Your task to perform on an android device: Open the Play Movies app and select the watchlist tab. Image 0: 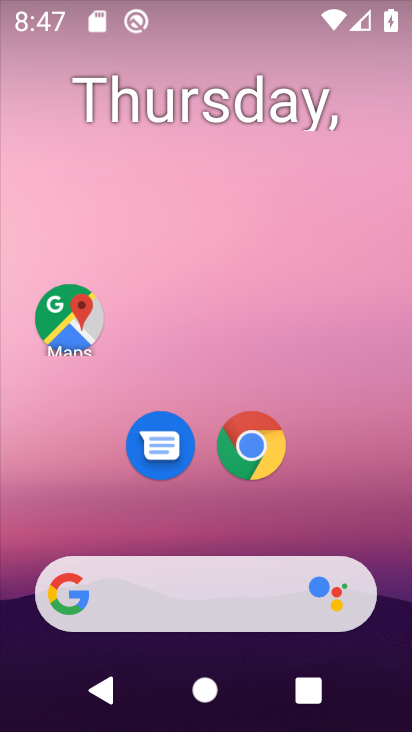
Step 0: press home button
Your task to perform on an android device: Open the Play Movies app and select the watchlist tab. Image 1: 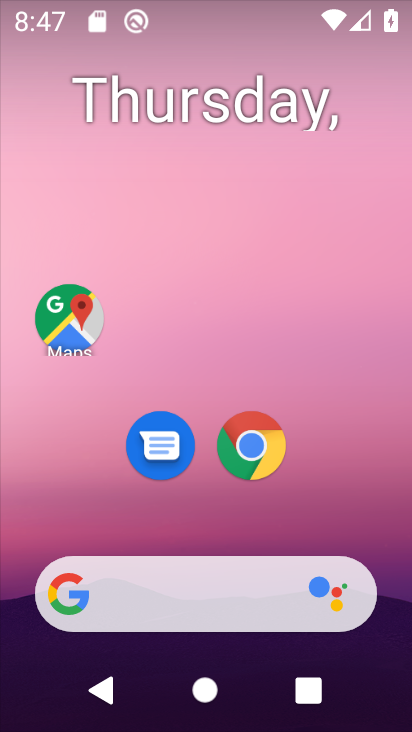
Step 1: drag from (330, 482) to (203, 79)
Your task to perform on an android device: Open the Play Movies app and select the watchlist tab. Image 2: 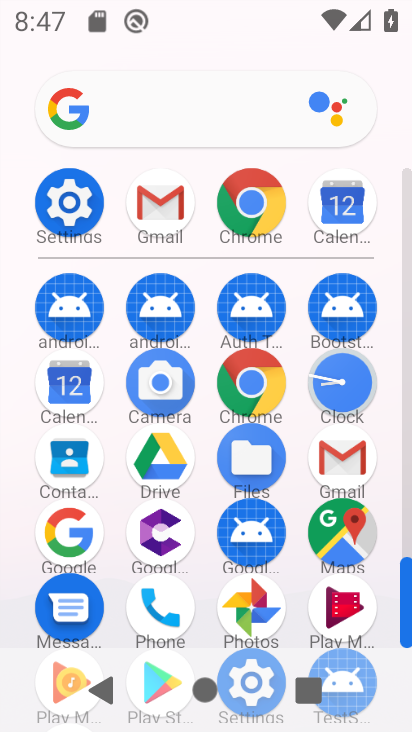
Step 2: click (337, 604)
Your task to perform on an android device: Open the Play Movies app and select the watchlist tab. Image 3: 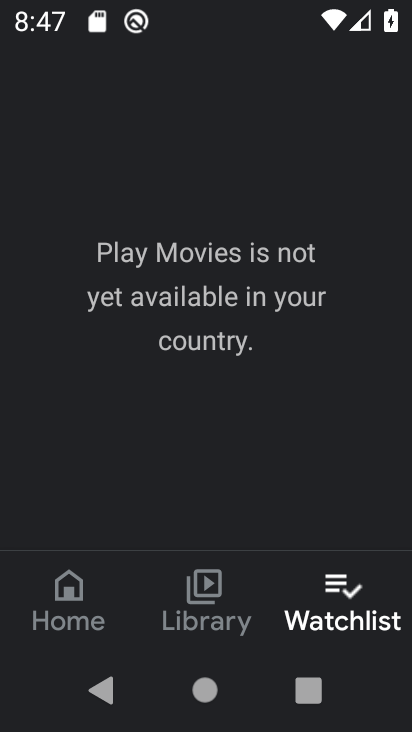
Step 3: task complete